Your task to perform on an android device: Go to Google Image 0: 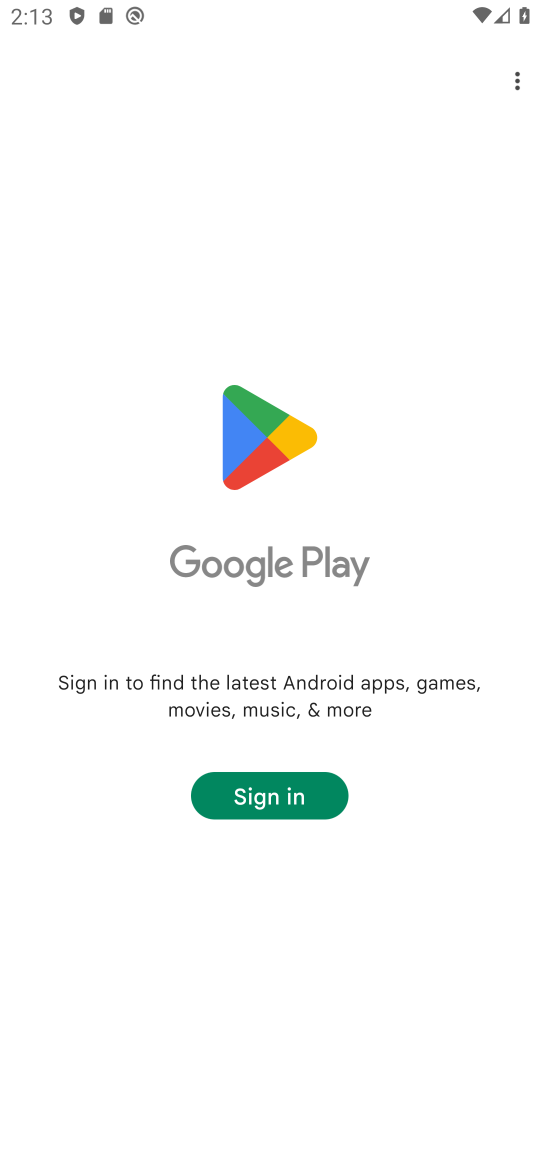
Step 0: press home button
Your task to perform on an android device: Go to Google Image 1: 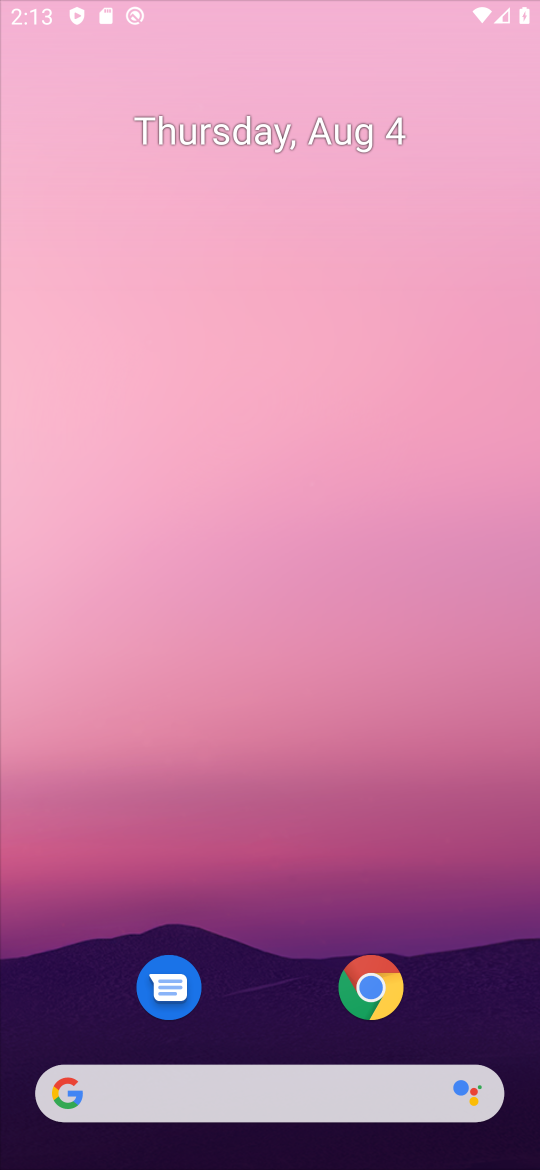
Step 1: drag from (481, 1006) to (248, 0)
Your task to perform on an android device: Go to Google Image 2: 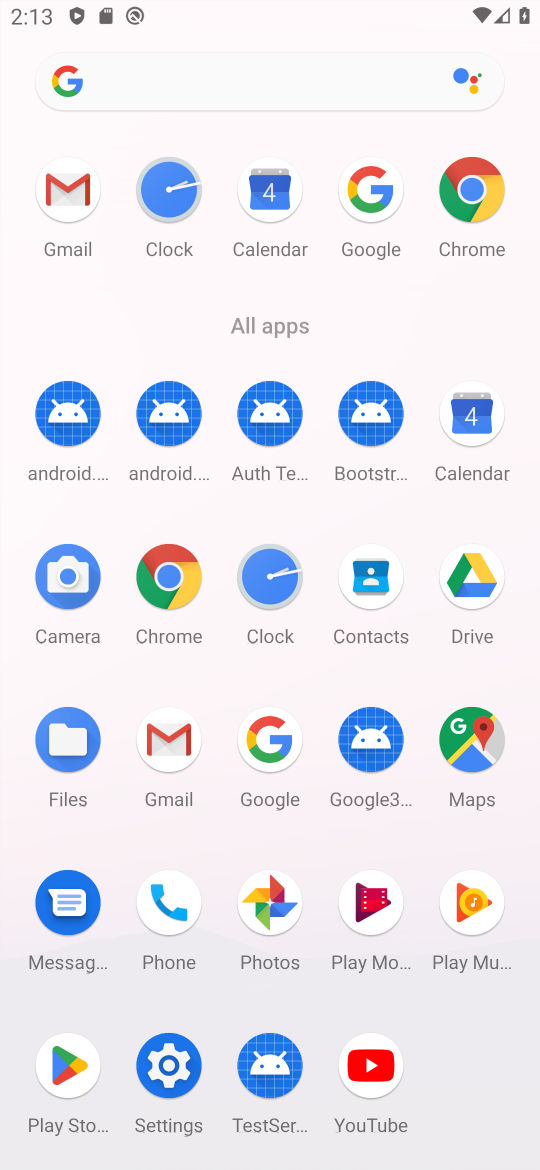
Step 2: click (280, 742)
Your task to perform on an android device: Go to Google Image 3: 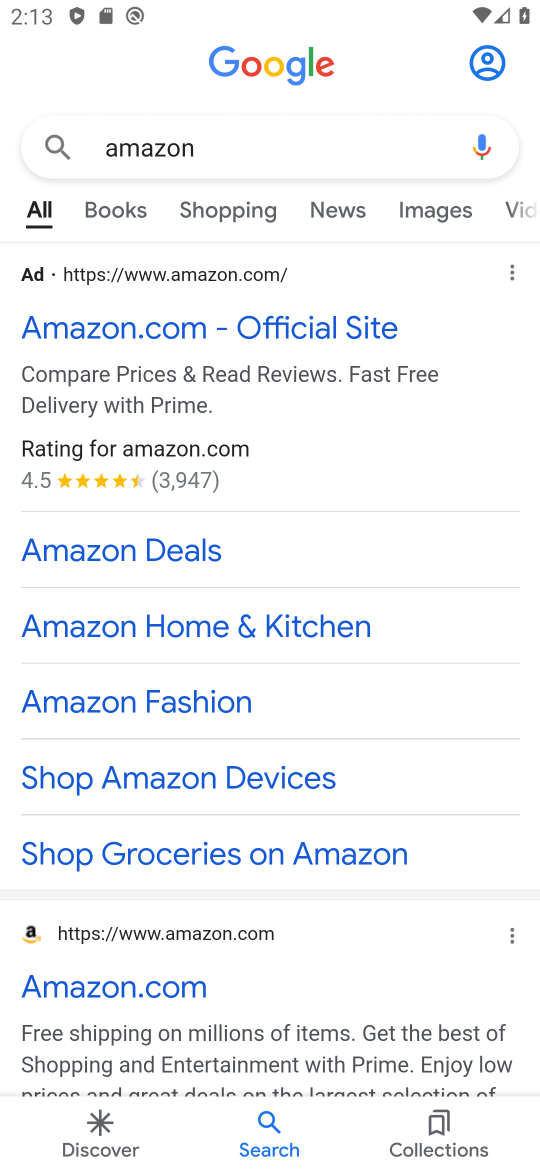
Step 3: task complete